Your task to perform on an android device: turn off wifi Image 0: 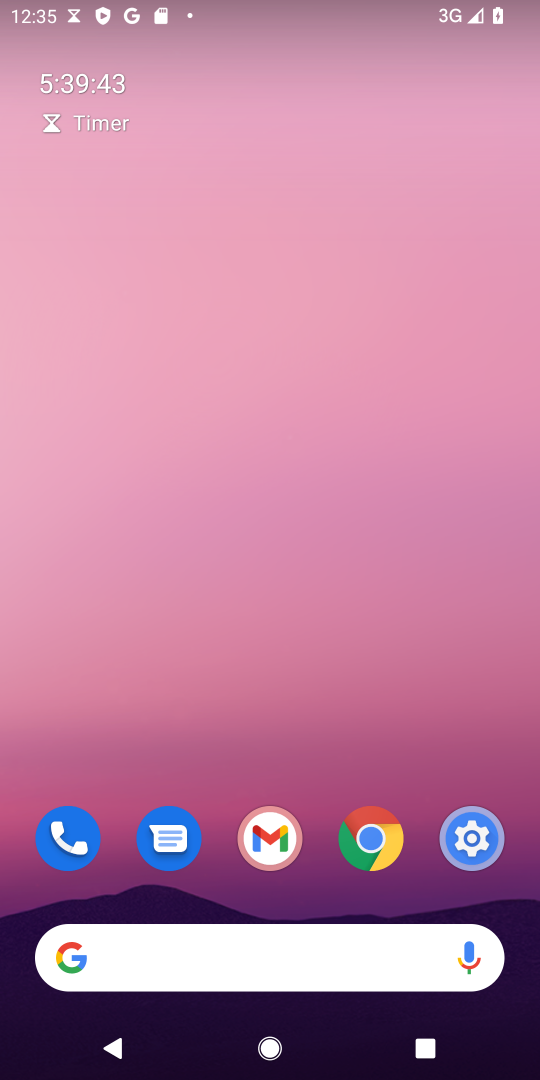
Step 0: click (474, 839)
Your task to perform on an android device: turn off wifi Image 1: 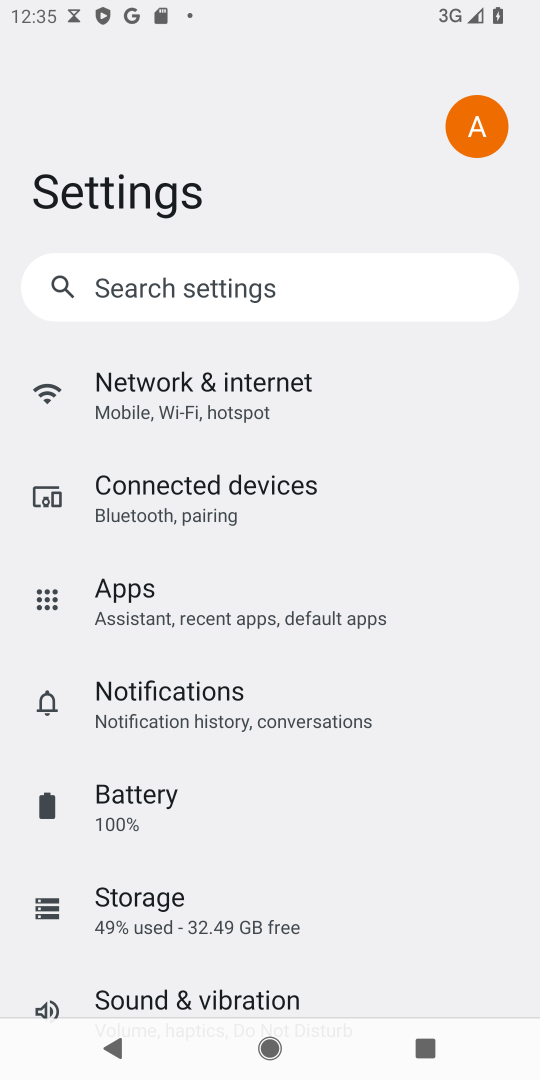
Step 1: click (234, 400)
Your task to perform on an android device: turn off wifi Image 2: 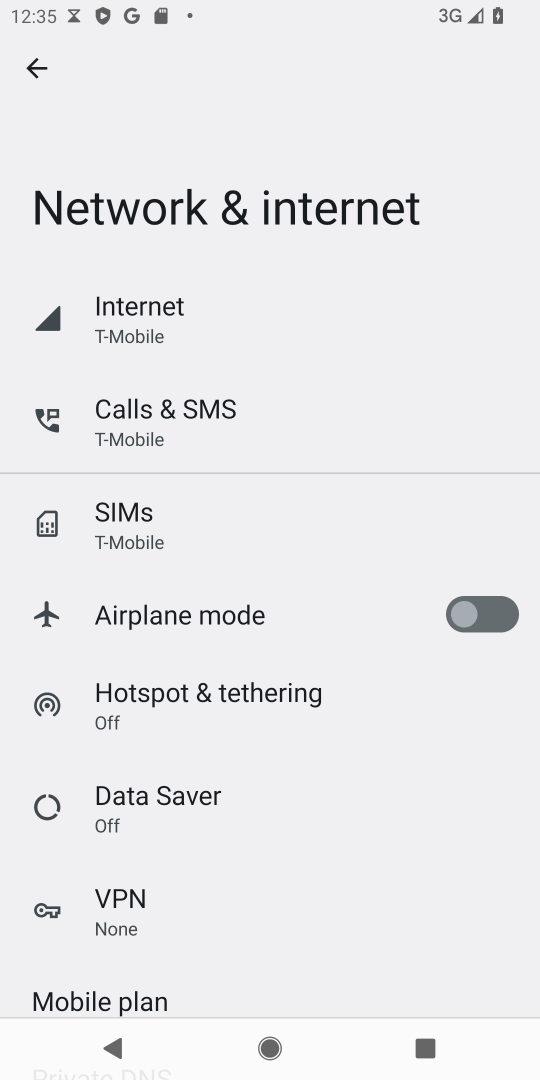
Step 2: click (168, 329)
Your task to perform on an android device: turn off wifi Image 3: 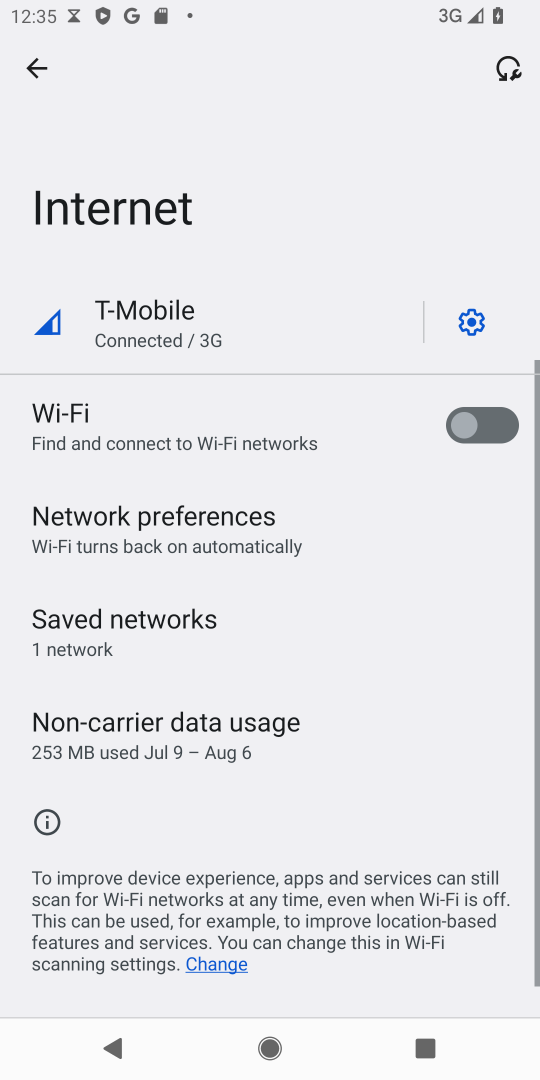
Step 3: task complete